Your task to perform on an android device: allow notifications from all sites in the chrome app Image 0: 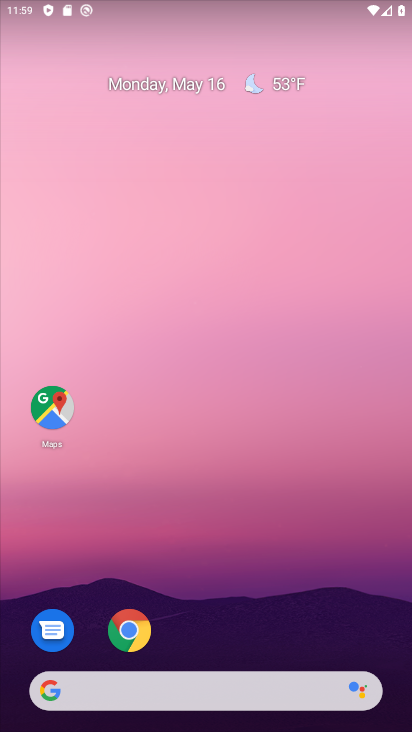
Step 0: drag from (214, 677) to (211, 219)
Your task to perform on an android device: allow notifications from all sites in the chrome app Image 1: 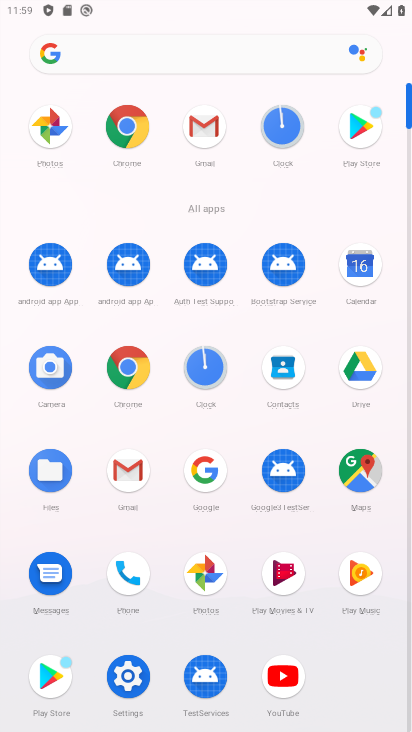
Step 1: click (135, 383)
Your task to perform on an android device: allow notifications from all sites in the chrome app Image 2: 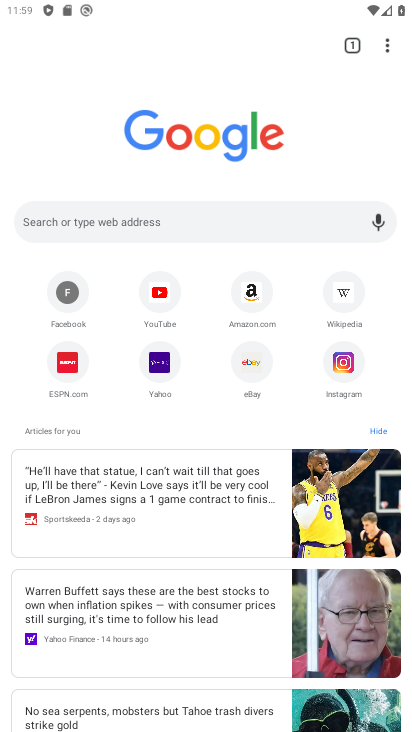
Step 2: click (374, 45)
Your task to perform on an android device: allow notifications from all sites in the chrome app Image 3: 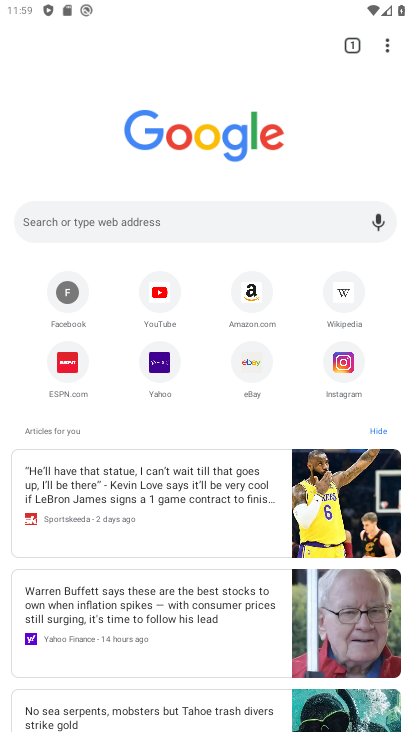
Step 3: click (387, 51)
Your task to perform on an android device: allow notifications from all sites in the chrome app Image 4: 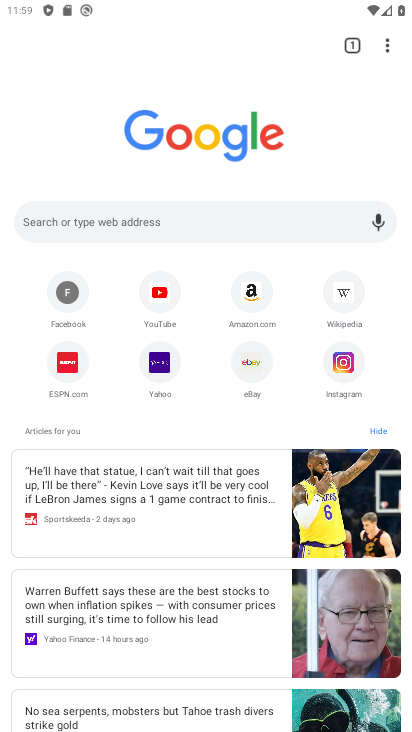
Step 4: click (382, 46)
Your task to perform on an android device: allow notifications from all sites in the chrome app Image 5: 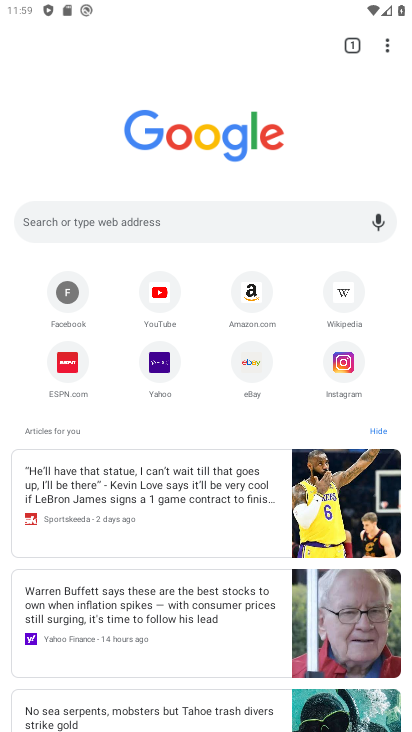
Step 5: click (390, 46)
Your task to perform on an android device: allow notifications from all sites in the chrome app Image 6: 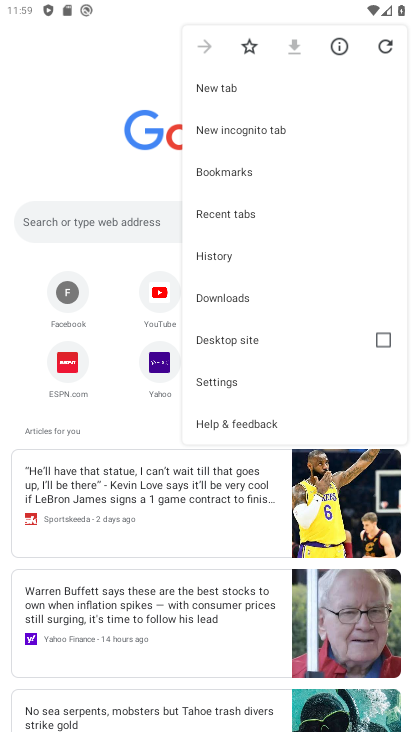
Step 6: click (234, 380)
Your task to perform on an android device: allow notifications from all sites in the chrome app Image 7: 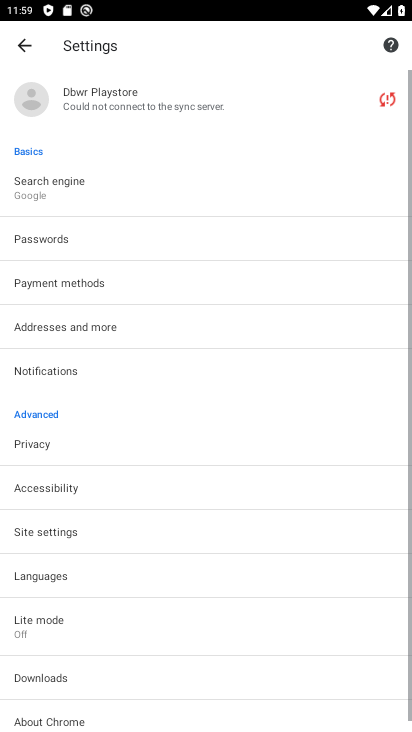
Step 7: drag from (140, 659) to (142, 394)
Your task to perform on an android device: allow notifications from all sites in the chrome app Image 8: 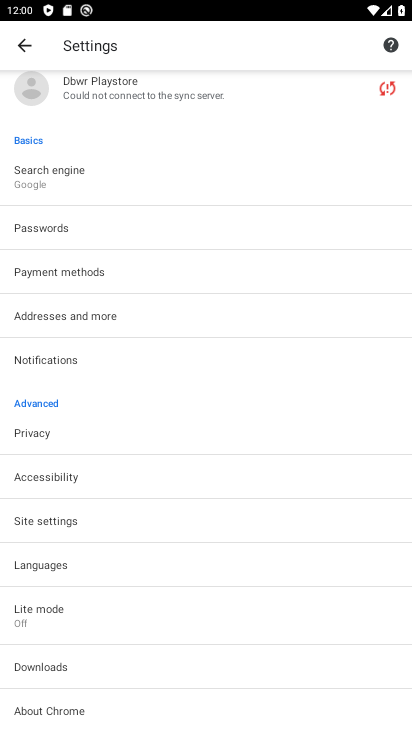
Step 8: click (77, 360)
Your task to perform on an android device: allow notifications from all sites in the chrome app Image 9: 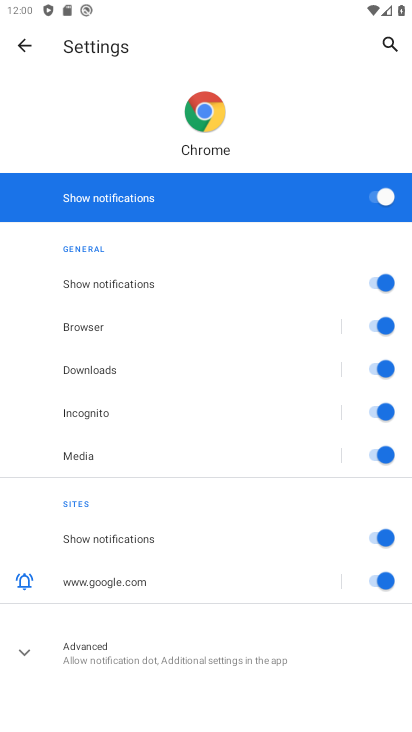
Step 9: task complete